Your task to perform on an android device: set the timer Image 0: 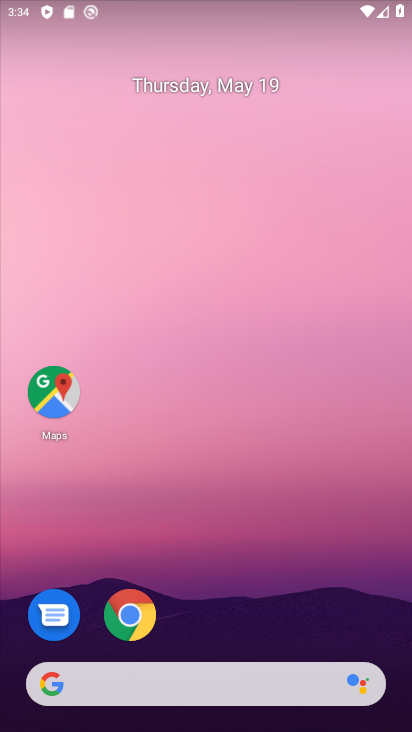
Step 0: drag from (307, 638) to (278, 10)
Your task to perform on an android device: set the timer Image 1: 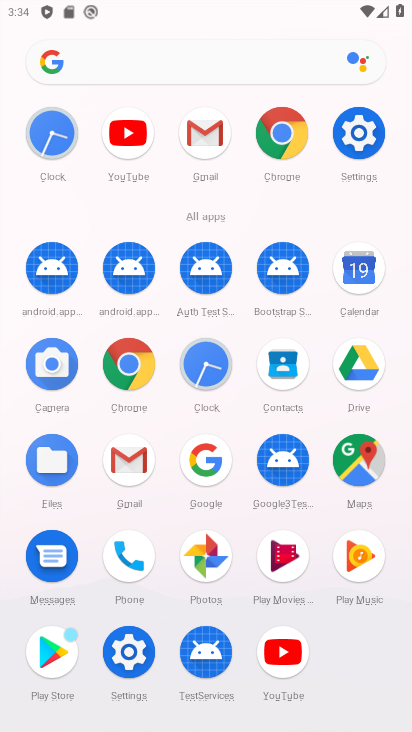
Step 1: click (208, 363)
Your task to perform on an android device: set the timer Image 2: 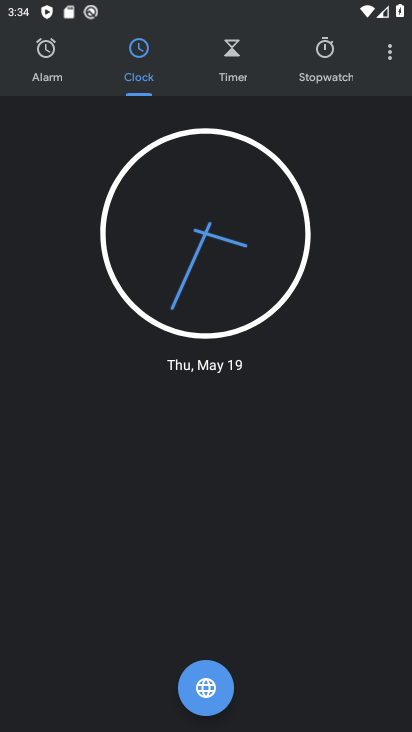
Step 2: click (229, 57)
Your task to perform on an android device: set the timer Image 3: 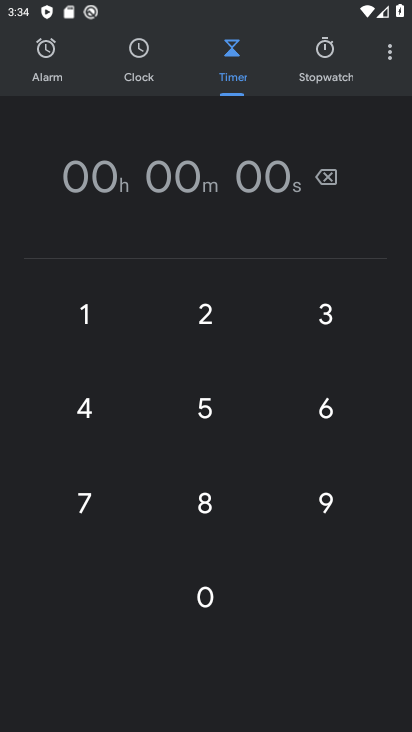
Step 3: click (209, 499)
Your task to perform on an android device: set the timer Image 4: 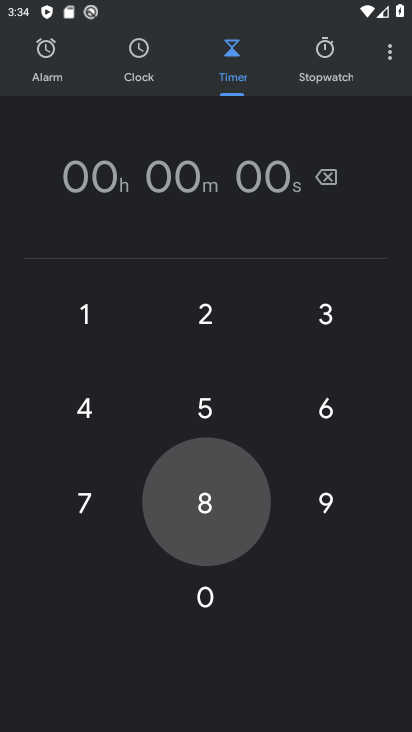
Step 4: click (208, 500)
Your task to perform on an android device: set the timer Image 5: 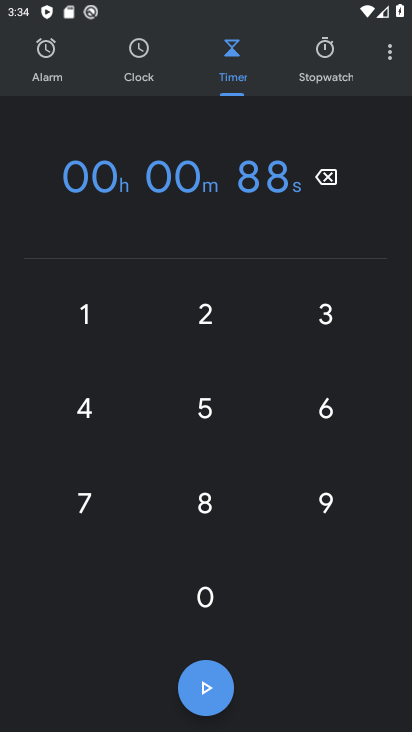
Step 5: click (199, 689)
Your task to perform on an android device: set the timer Image 6: 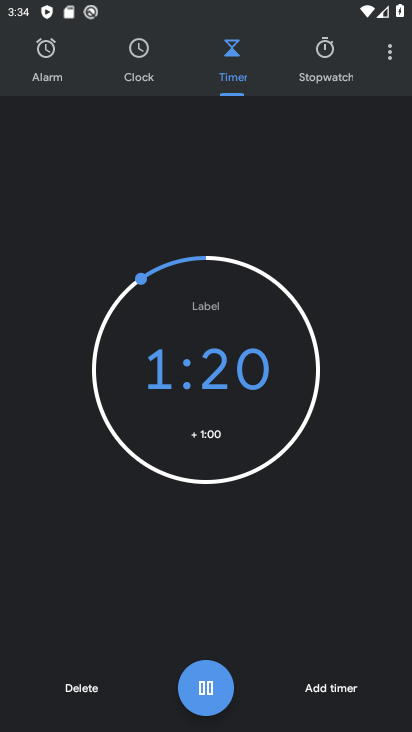
Step 6: click (207, 690)
Your task to perform on an android device: set the timer Image 7: 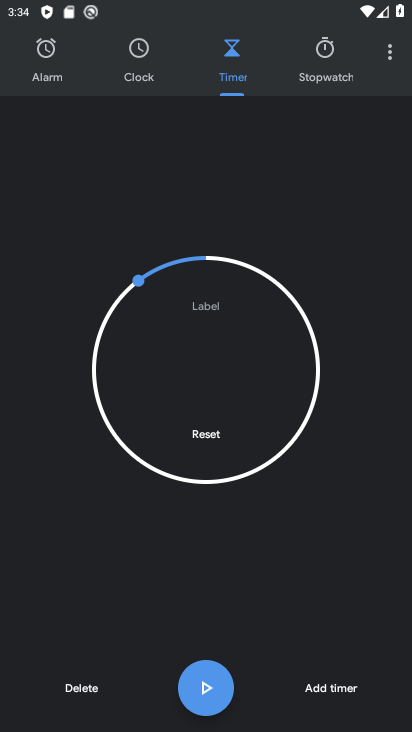
Step 7: click (343, 692)
Your task to perform on an android device: set the timer Image 8: 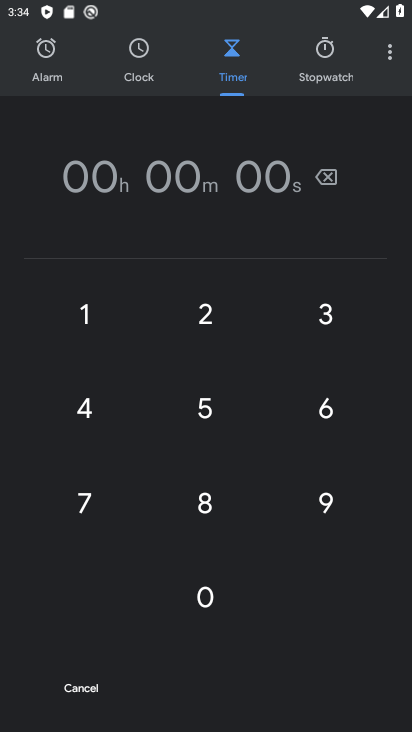
Step 8: task complete